Your task to perform on an android device: What's the weather today? Image 0: 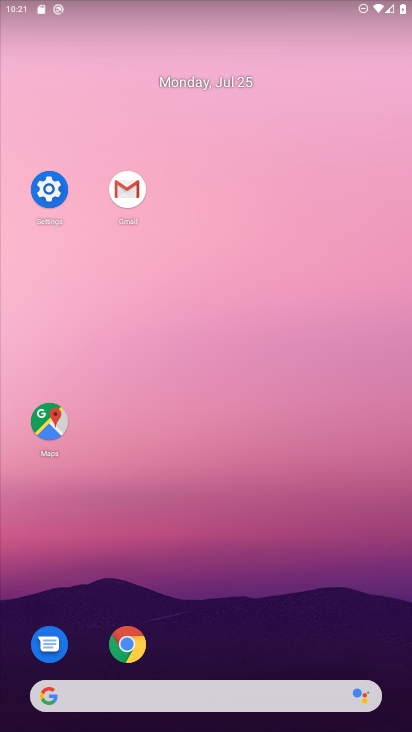
Step 0: drag from (257, 588) to (342, 170)
Your task to perform on an android device: What's the weather today? Image 1: 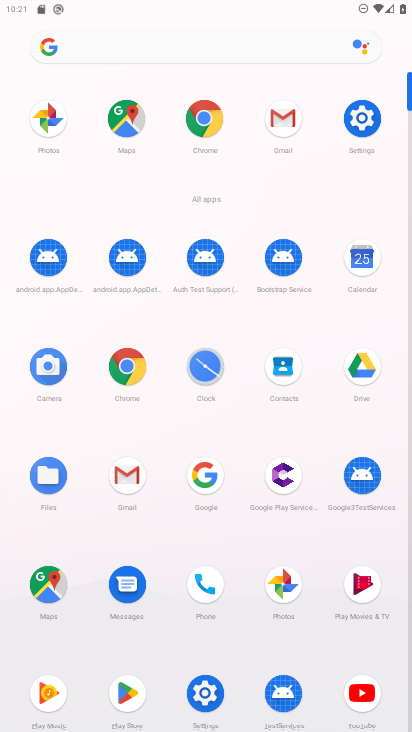
Step 1: drag from (215, 466) to (89, 304)
Your task to perform on an android device: What's the weather today? Image 2: 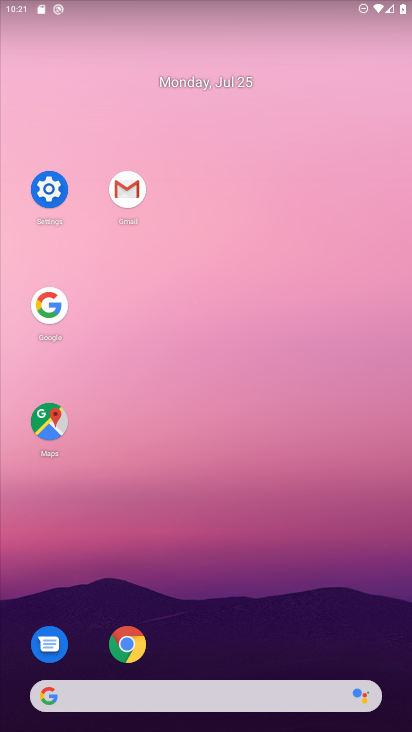
Step 2: click (64, 311)
Your task to perform on an android device: What's the weather today? Image 3: 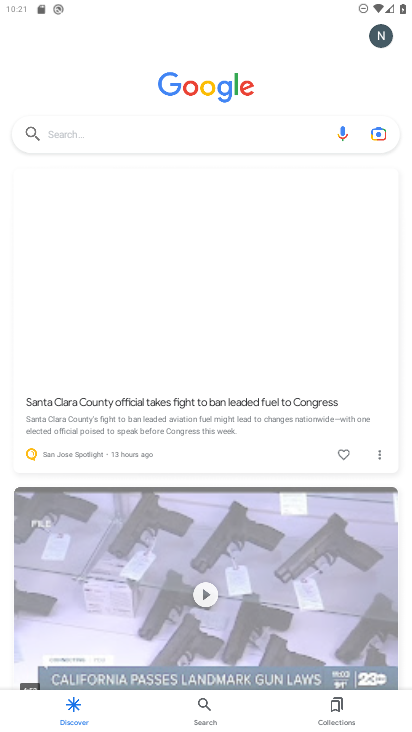
Step 3: click (253, 140)
Your task to perform on an android device: What's the weather today? Image 4: 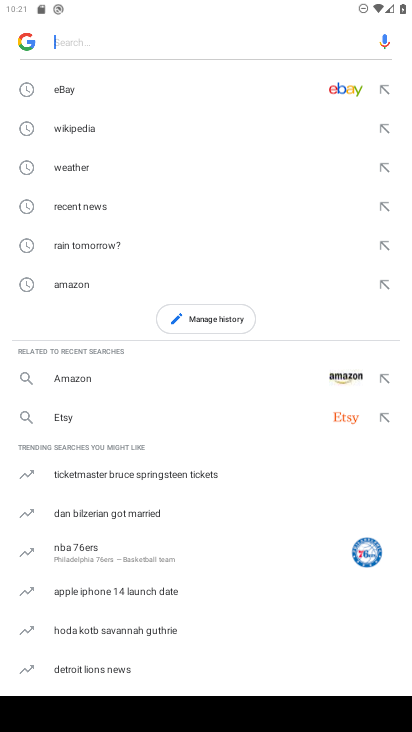
Step 4: click (102, 169)
Your task to perform on an android device: What's the weather today? Image 5: 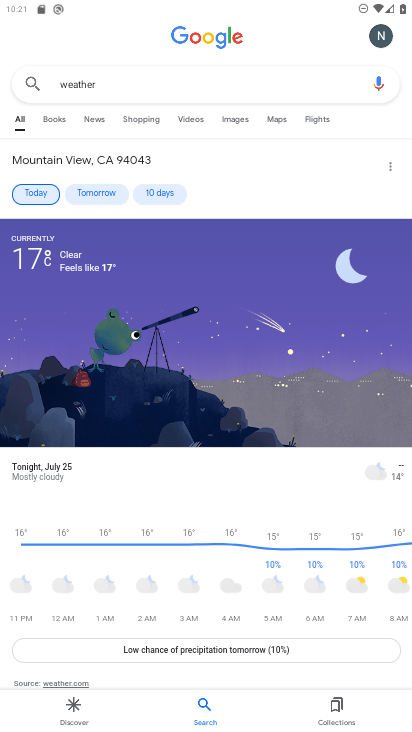
Step 5: task complete